Your task to perform on an android device: check out phone information Image 0: 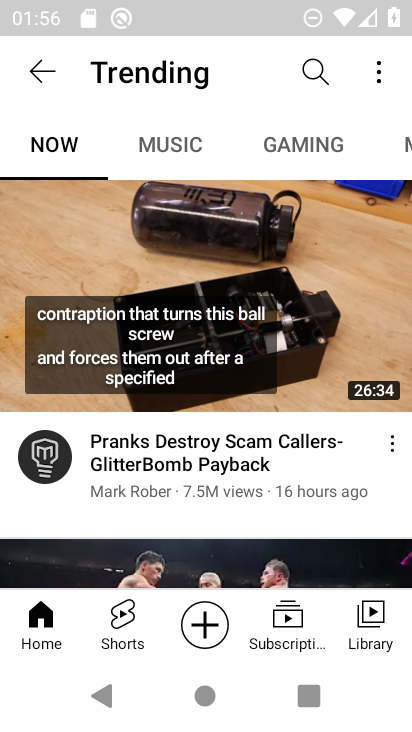
Step 0: press home button
Your task to perform on an android device: check out phone information Image 1: 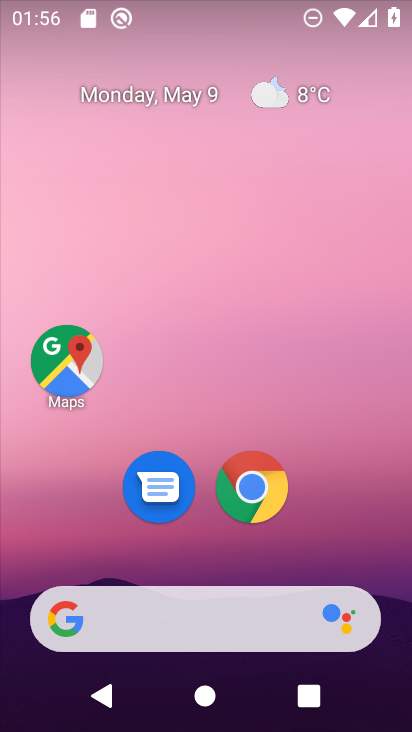
Step 1: drag from (366, 520) to (313, 23)
Your task to perform on an android device: check out phone information Image 2: 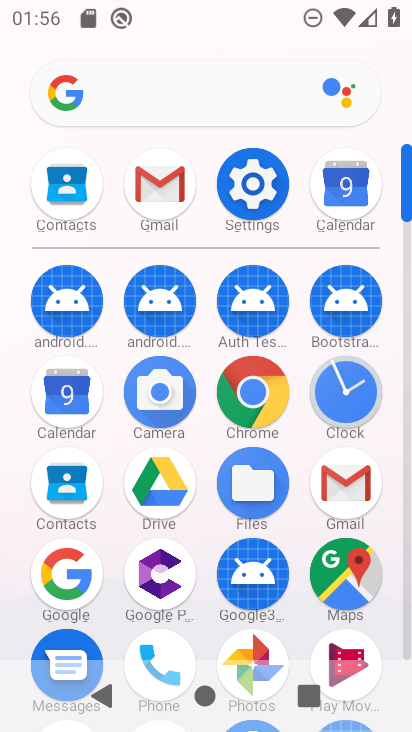
Step 2: drag from (201, 307) to (183, 63)
Your task to perform on an android device: check out phone information Image 3: 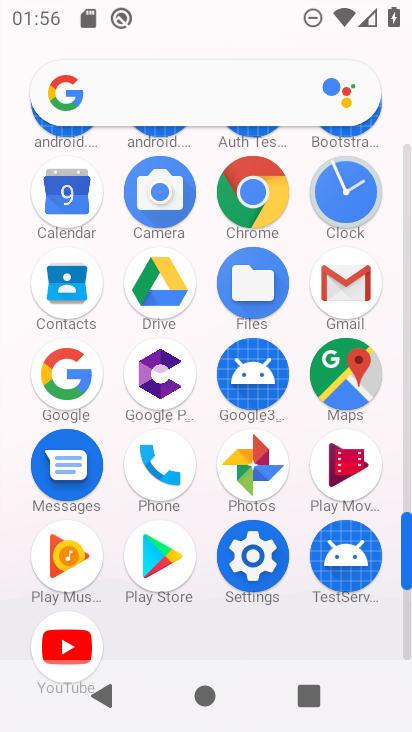
Step 3: click (245, 567)
Your task to perform on an android device: check out phone information Image 4: 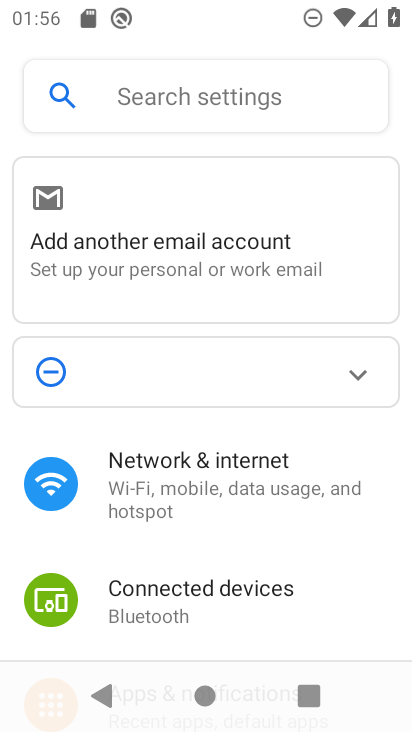
Step 4: drag from (233, 524) to (203, 118)
Your task to perform on an android device: check out phone information Image 5: 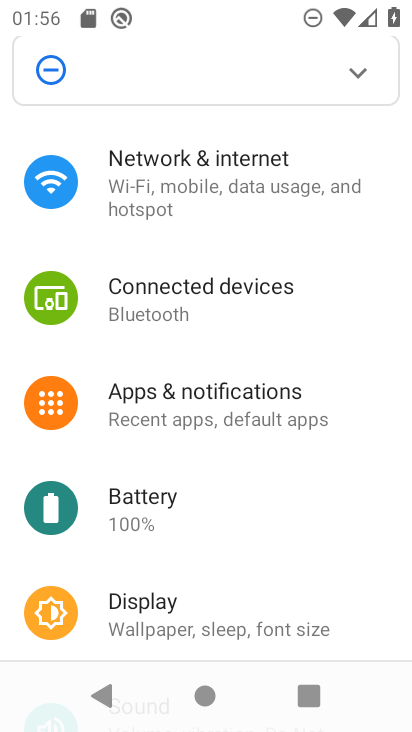
Step 5: drag from (200, 558) to (208, 14)
Your task to perform on an android device: check out phone information Image 6: 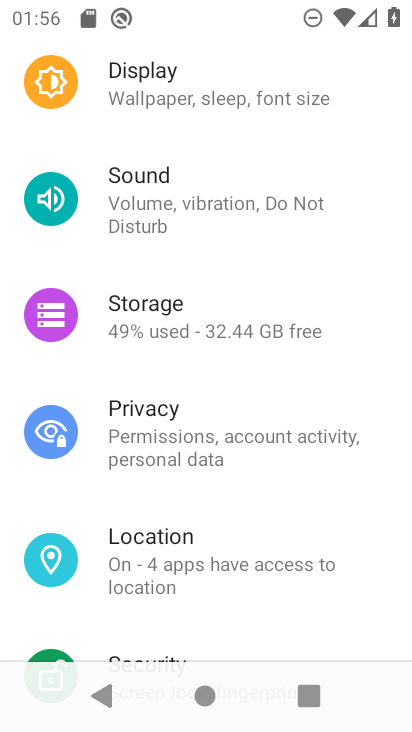
Step 6: drag from (222, 583) to (198, 2)
Your task to perform on an android device: check out phone information Image 7: 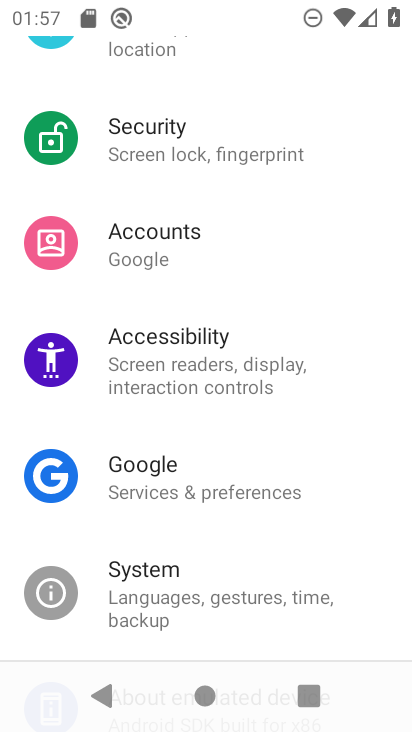
Step 7: drag from (177, 563) to (178, 223)
Your task to perform on an android device: check out phone information Image 8: 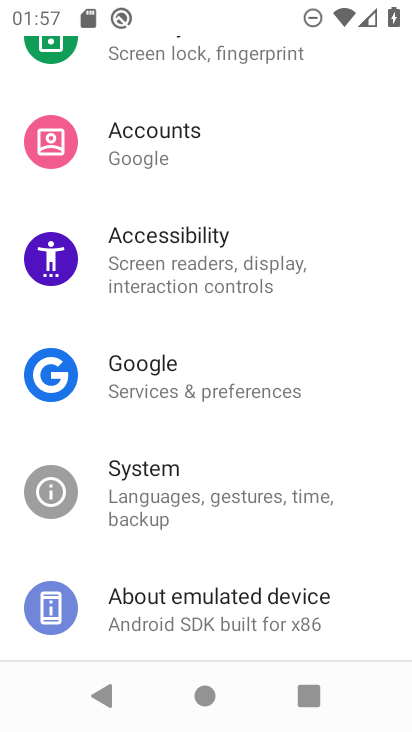
Step 8: click (174, 613)
Your task to perform on an android device: check out phone information Image 9: 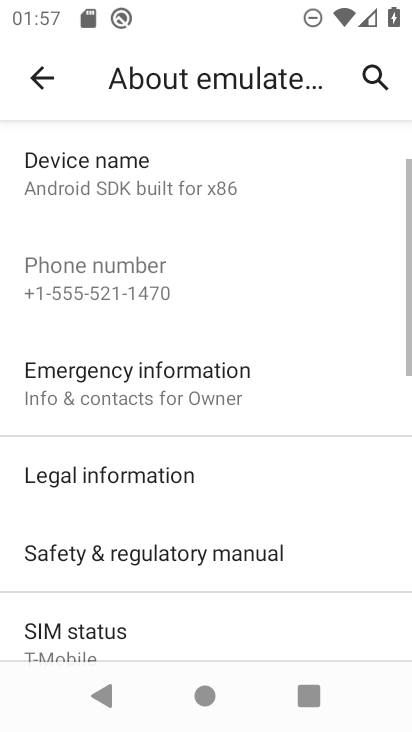
Step 9: task complete